Your task to perform on an android device: Do I have any events tomorrow? Image 0: 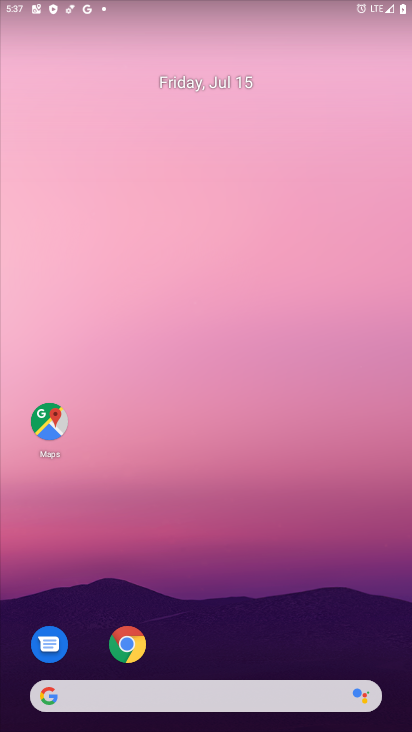
Step 0: drag from (184, 643) to (234, 82)
Your task to perform on an android device: Do I have any events tomorrow? Image 1: 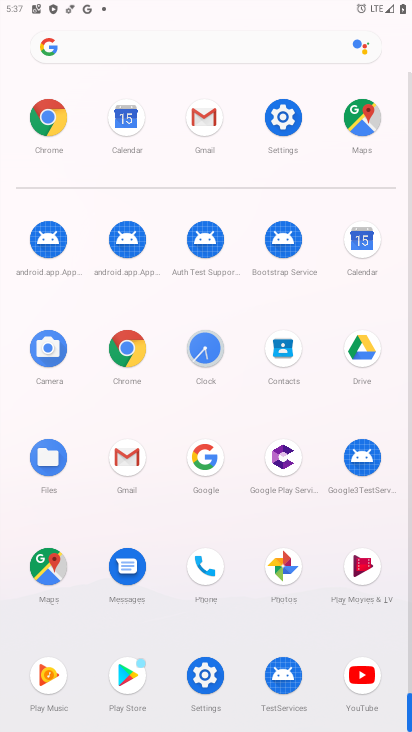
Step 1: click (352, 247)
Your task to perform on an android device: Do I have any events tomorrow? Image 2: 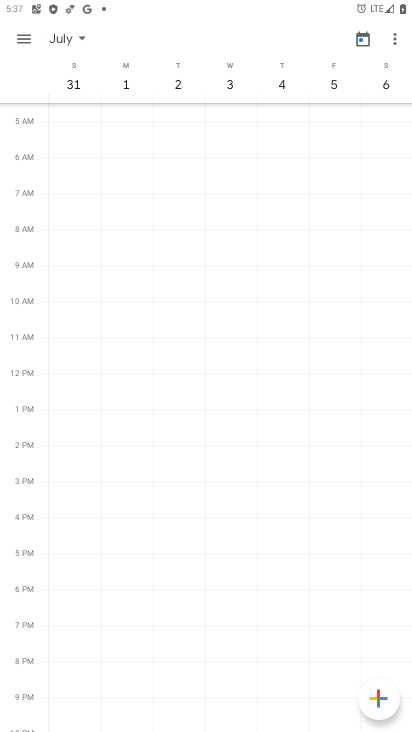
Step 2: click (353, 37)
Your task to perform on an android device: Do I have any events tomorrow? Image 3: 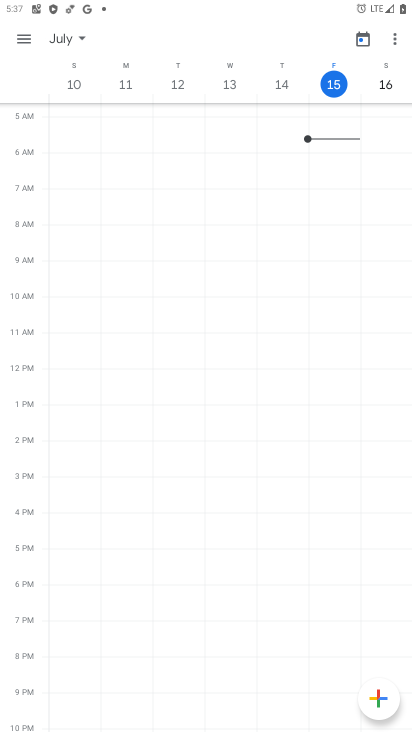
Step 3: click (380, 94)
Your task to perform on an android device: Do I have any events tomorrow? Image 4: 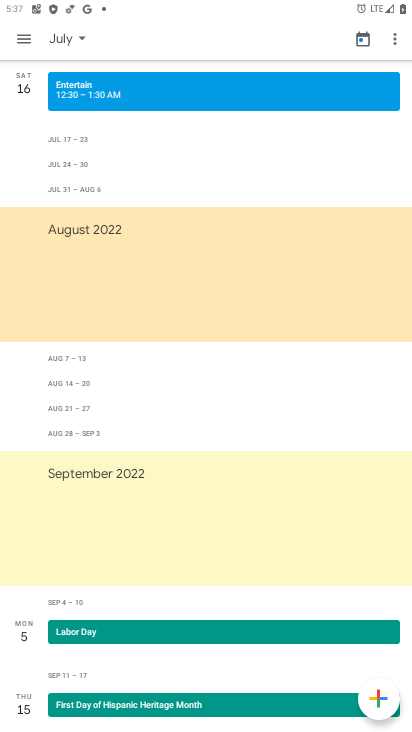
Step 4: task complete